Your task to perform on an android device: Check the weather Image 0: 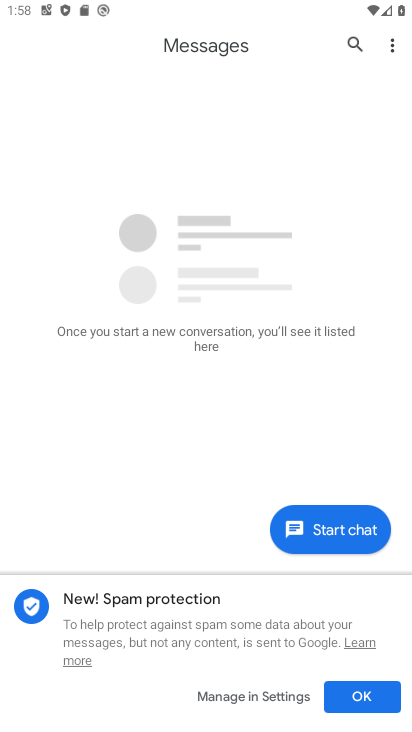
Step 0: press back button
Your task to perform on an android device: Check the weather Image 1: 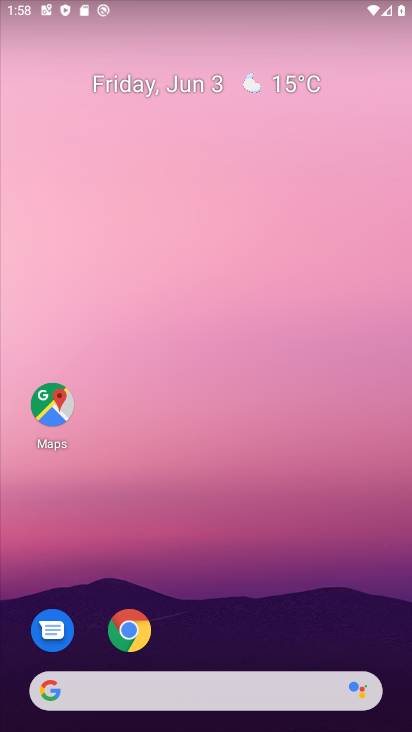
Step 1: drag from (236, 585) to (221, 1)
Your task to perform on an android device: Check the weather Image 2: 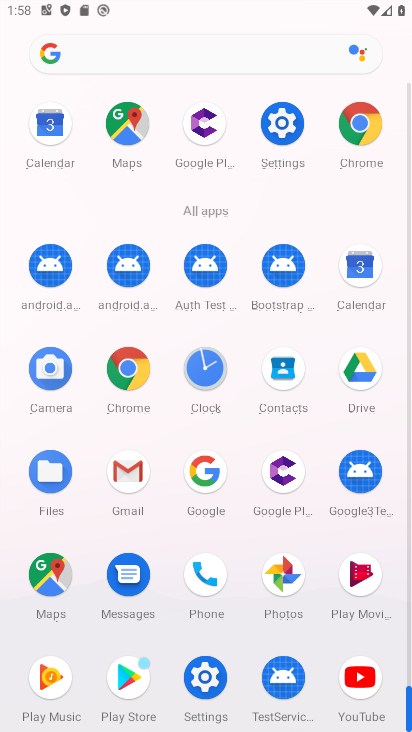
Step 2: click (128, 367)
Your task to perform on an android device: Check the weather Image 3: 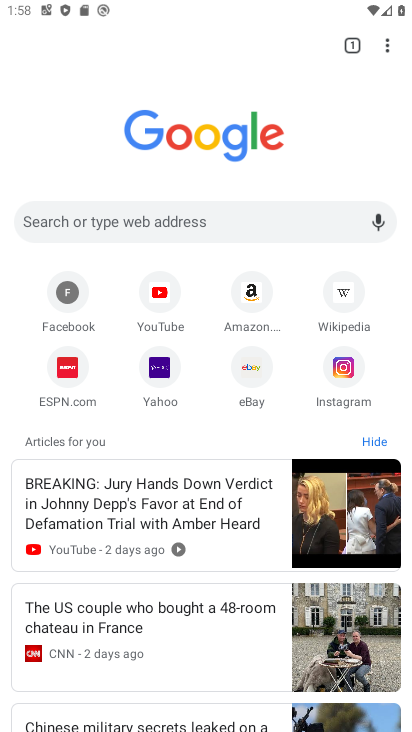
Step 3: click (232, 214)
Your task to perform on an android device: Check the weather Image 4: 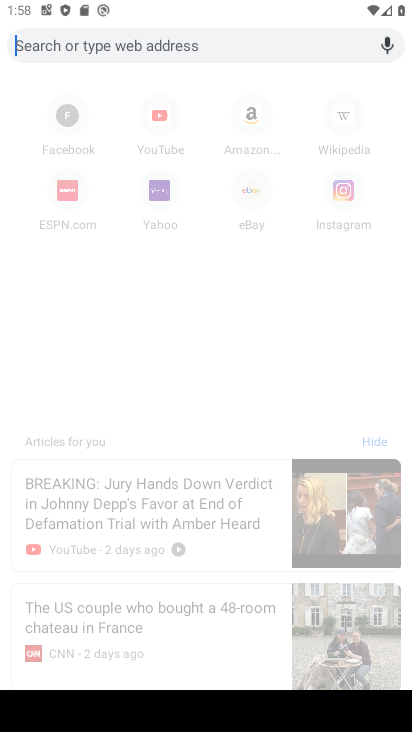
Step 4: type "Check the weather"
Your task to perform on an android device: Check the weather Image 5: 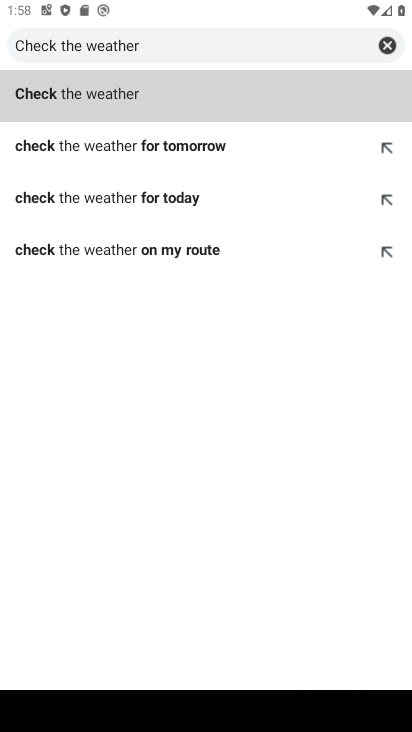
Step 5: click (148, 99)
Your task to perform on an android device: Check the weather Image 6: 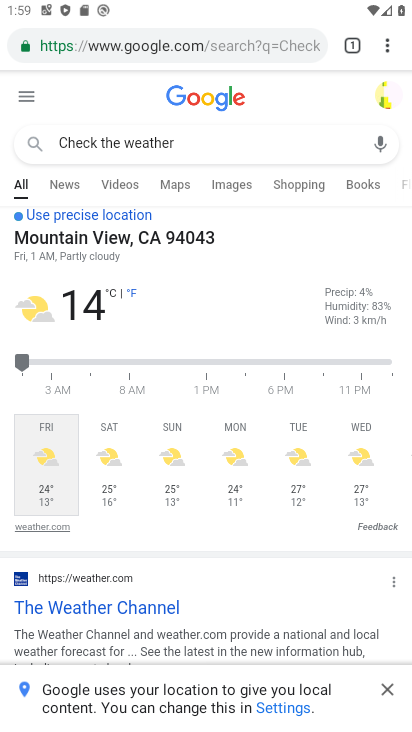
Step 6: task complete